Your task to perform on an android device: turn off priority inbox in the gmail app Image 0: 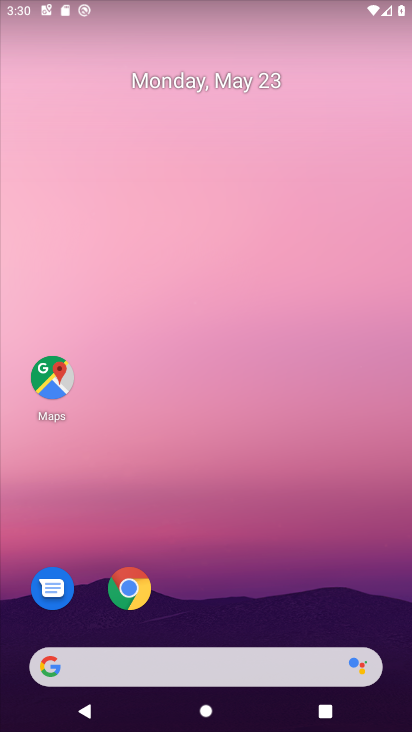
Step 0: drag from (198, 575) to (241, 133)
Your task to perform on an android device: turn off priority inbox in the gmail app Image 1: 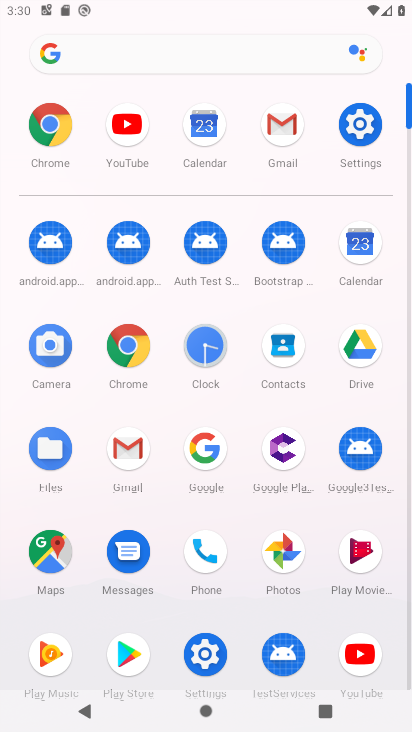
Step 1: click (120, 439)
Your task to perform on an android device: turn off priority inbox in the gmail app Image 2: 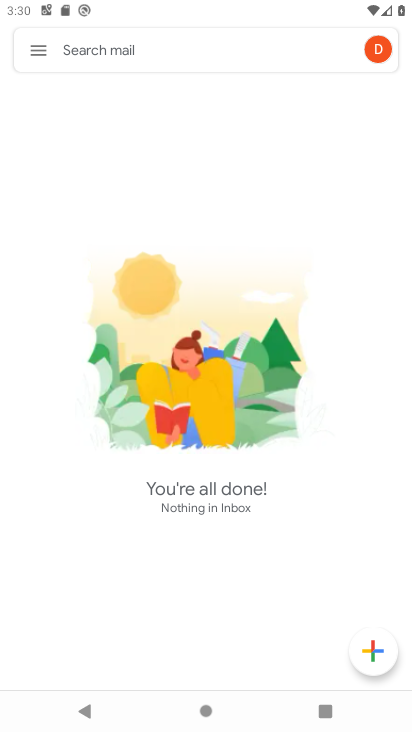
Step 2: drag from (266, 616) to (273, 266)
Your task to perform on an android device: turn off priority inbox in the gmail app Image 3: 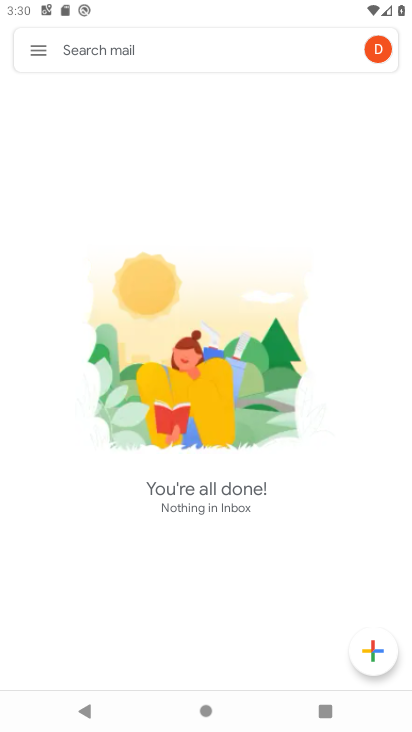
Step 3: click (35, 50)
Your task to perform on an android device: turn off priority inbox in the gmail app Image 4: 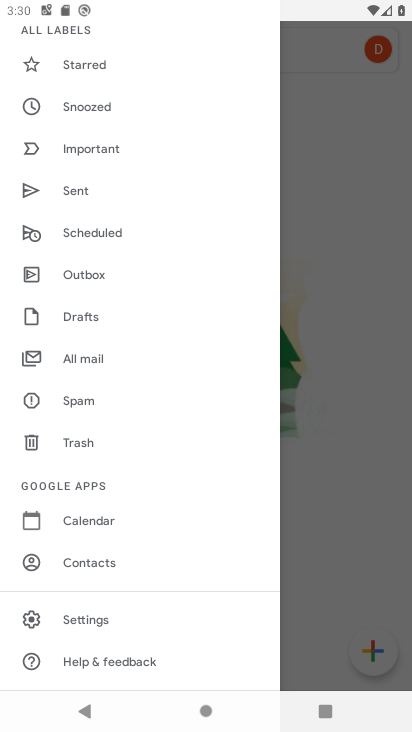
Step 4: drag from (112, 598) to (144, 211)
Your task to perform on an android device: turn off priority inbox in the gmail app Image 5: 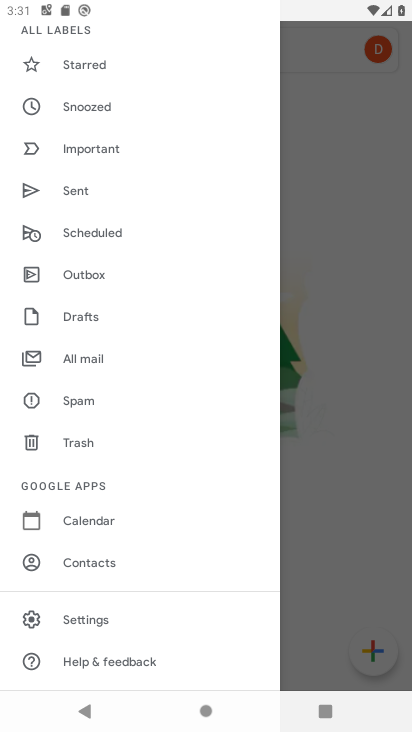
Step 5: click (99, 630)
Your task to perform on an android device: turn off priority inbox in the gmail app Image 6: 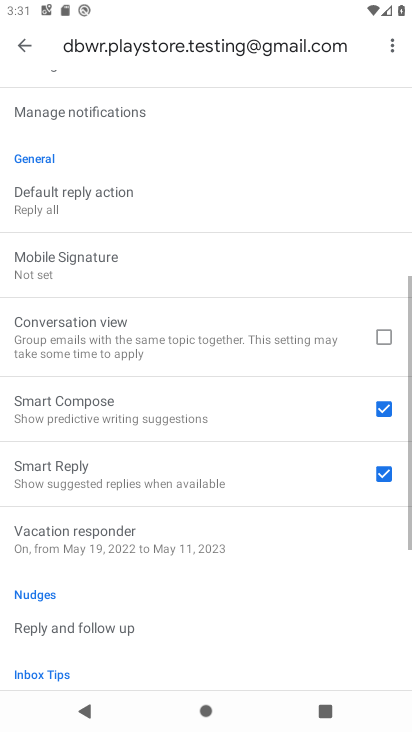
Step 6: drag from (189, 461) to (240, 154)
Your task to perform on an android device: turn off priority inbox in the gmail app Image 7: 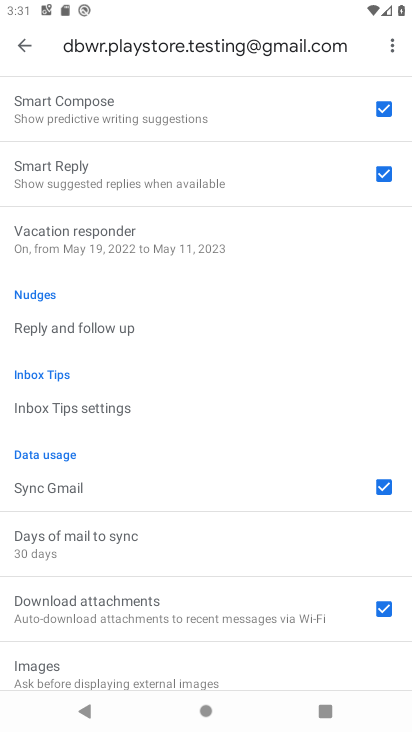
Step 7: drag from (209, 202) to (190, 525)
Your task to perform on an android device: turn off priority inbox in the gmail app Image 8: 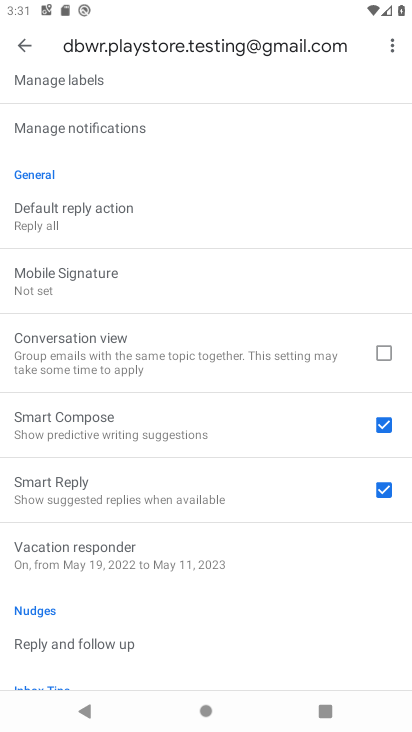
Step 8: drag from (154, 219) to (250, 728)
Your task to perform on an android device: turn off priority inbox in the gmail app Image 9: 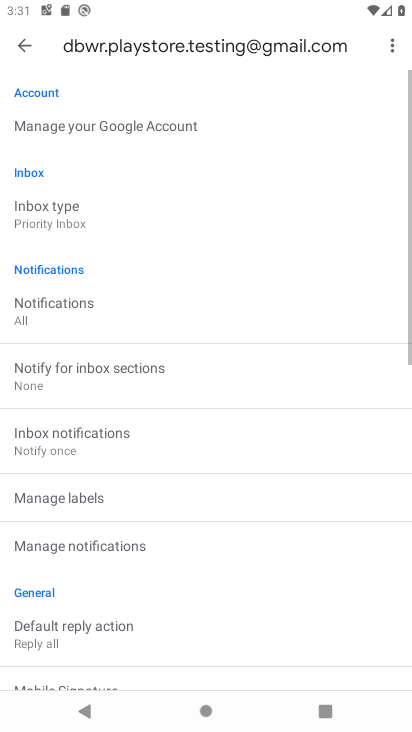
Step 9: click (119, 216)
Your task to perform on an android device: turn off priority inbox in the gmail app Image 10: 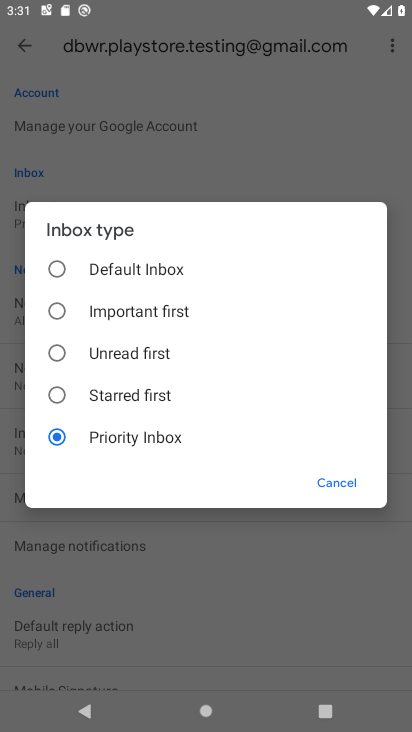
Step 10: click (103, 272)
Your task to perform on an android device: turn off priority inbox in the gmail app Image 11: 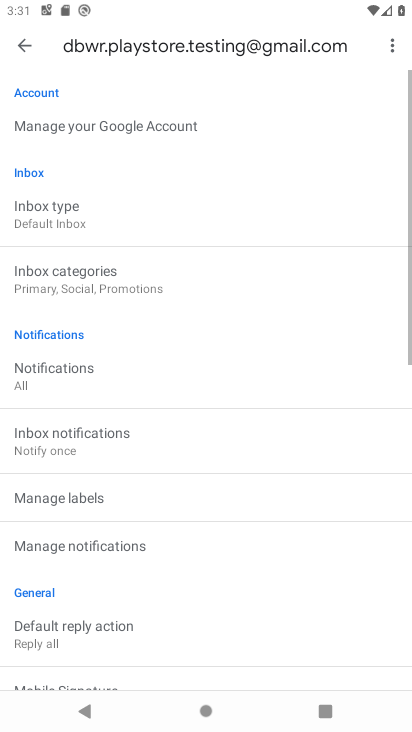
Step 11: task complete